Your task to perform on an android device: Open ESPN.com Image 0: 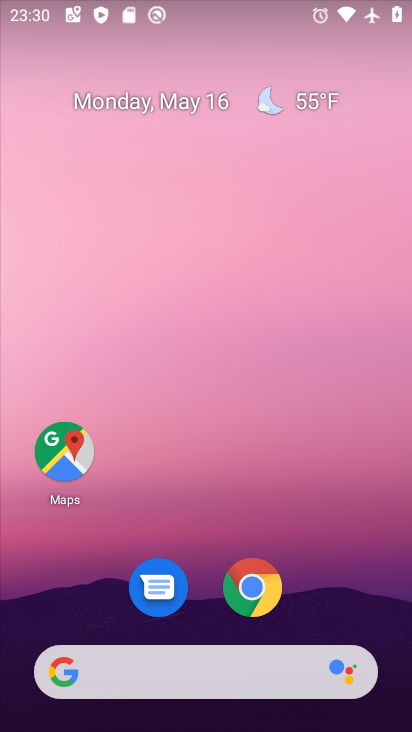
Step 0: drag from (294, 523) to (236, 5)
Your task to perform on an android device: Open ESPN.com Image 1: 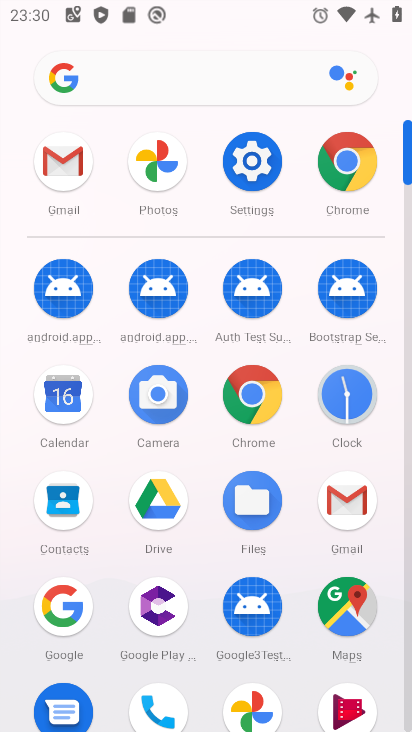
Step 1: drag from (4, 515) to (7, 275)
Your task to perform on an android device: Open ESPN.com Image 2: 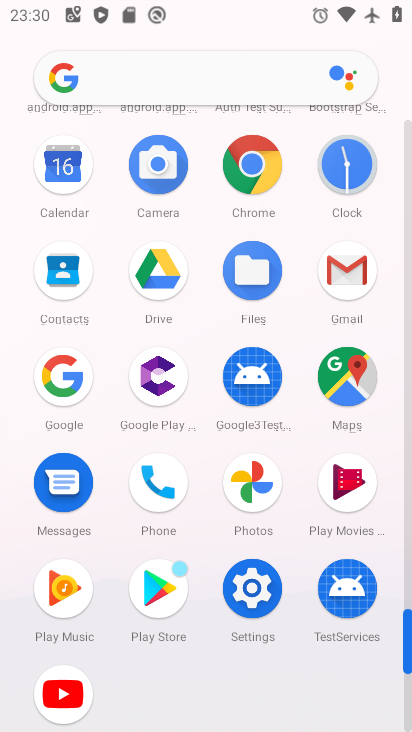
Step 2: click (250, 161)
Your task to perform on an android device: Open ESPN.com Image 3: 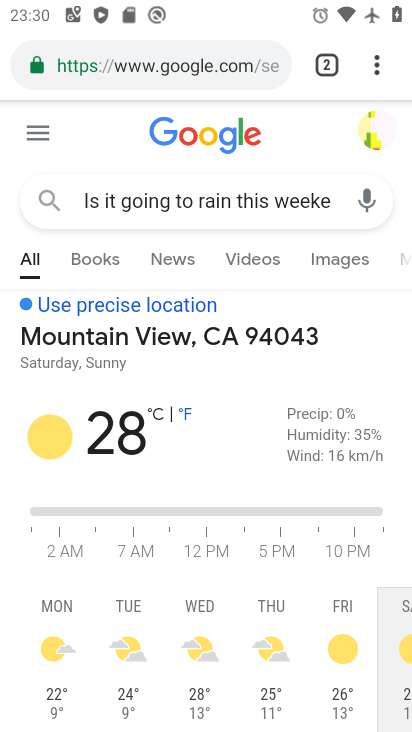
Step 3: click (169, 63)
Your task to perform on an android device: Open ESPN.com Image 4: 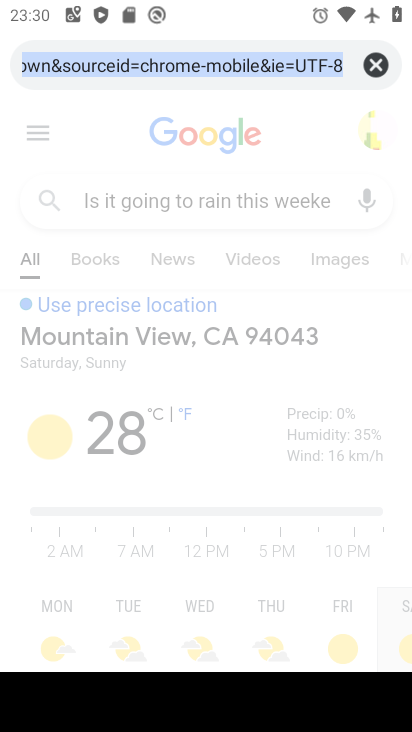
Step 4: click (373, 56)
Your task to perform on an android device: Open ESPN.com Image 5: 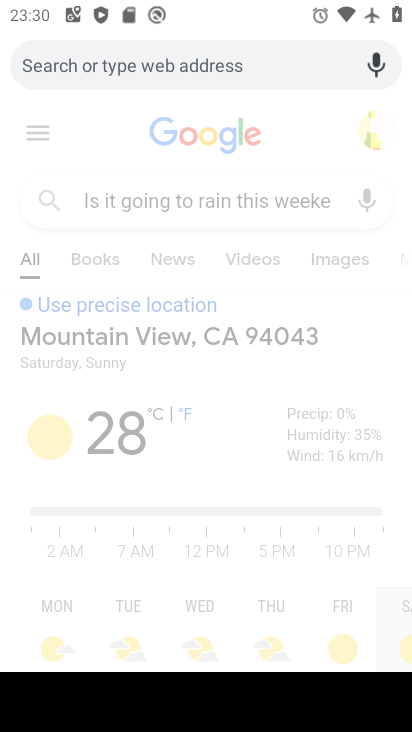
Step 5: type "ESPN.com"
Your task to perform on an android device: Open ESPN.com Image 6: 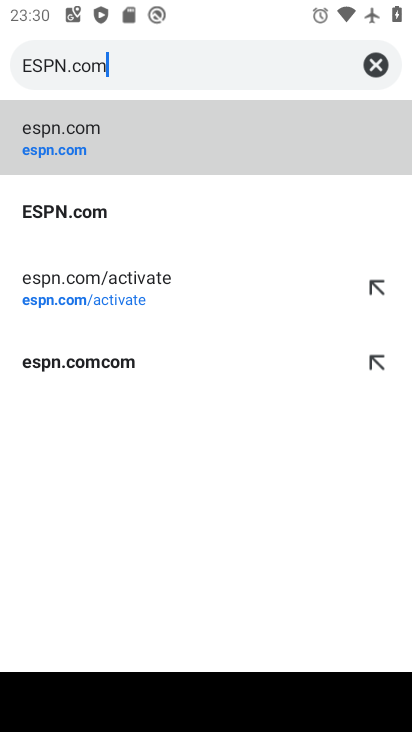
Step 6: type ""
Your task to perform on an android device: Open ESPN.com Image 7: 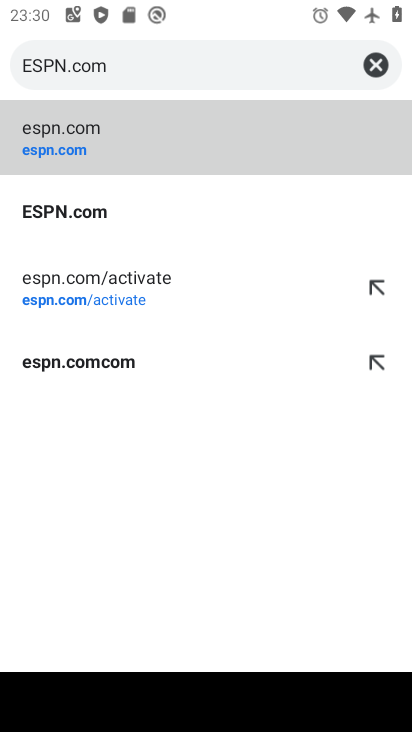
Step 7: click (173, 132)
Your task to perform on an android device: Open ESPN.com Image 8: 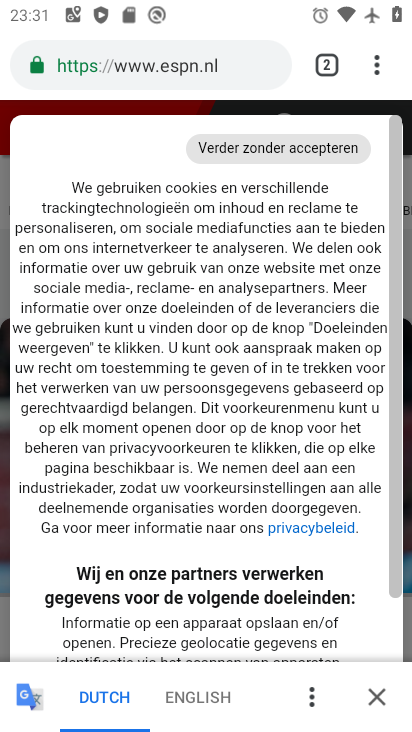
Step 8: task complete